Your task to perform on an android device: Open Chrome and go to the settings page Image 0: 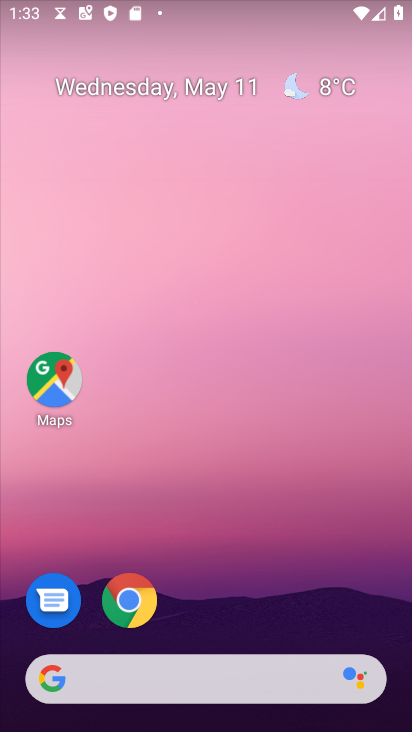
Step 0: click (141, 598)
Your task to perform on an android device: Open Chrome and go to the settings page Image 1: 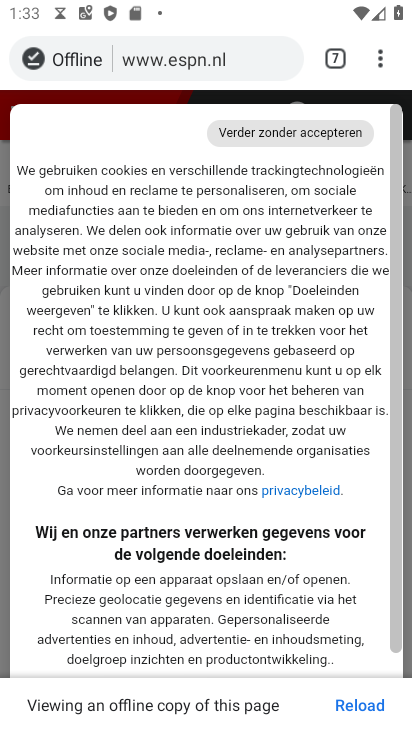
Step 1: click (379, 57)
Your task to perform on an android device: Open Chrome and go to the settings page Image 2: 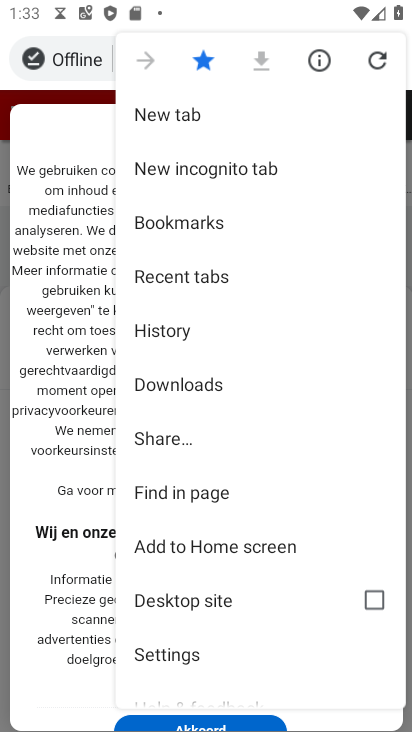
Step 2: click (208, 649)
Your task to perform on an android device: Open Chrome and go to the settings page Image 3: 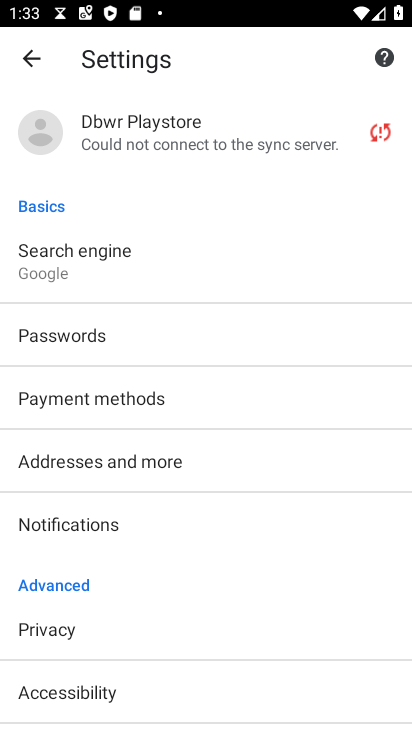
Step 3: task complete